Your task to perform on an android device: Open Chrome and go to the settings page Image 0: 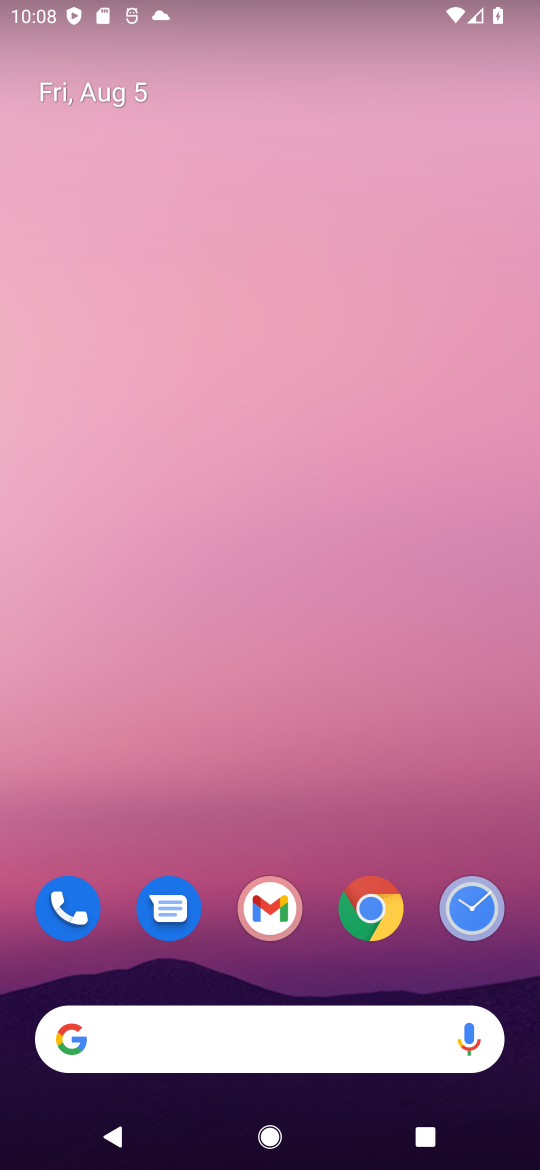
Step 0: click (370, 898)
Your task to perform on an android device: Open Chrome and go to the settings page Image 1: 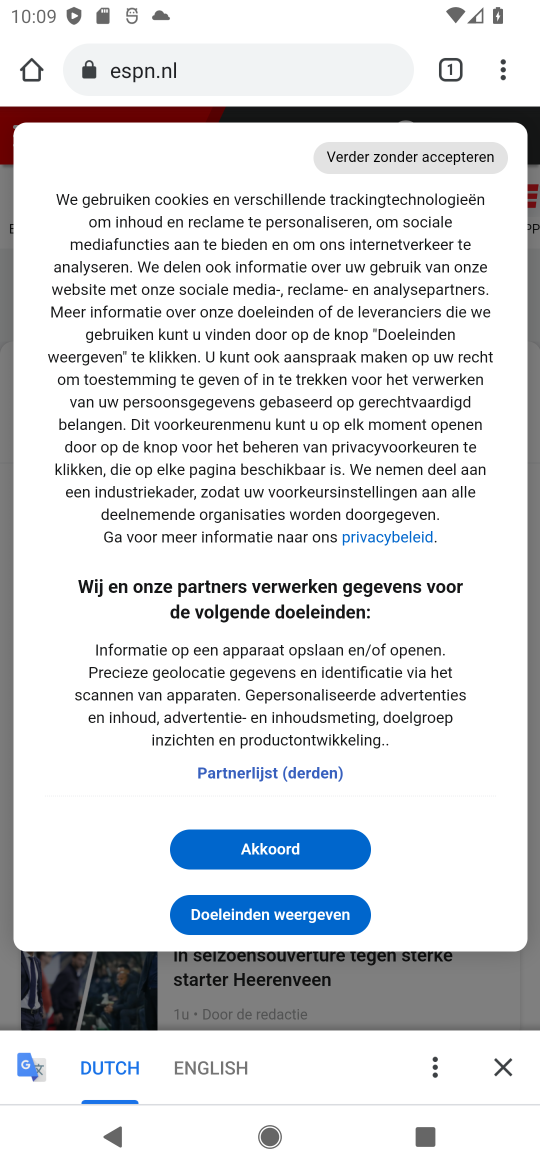
Step 1: task complete